Your task to perform on an android device: allow notifications from all sites in the chrome app Image 0: 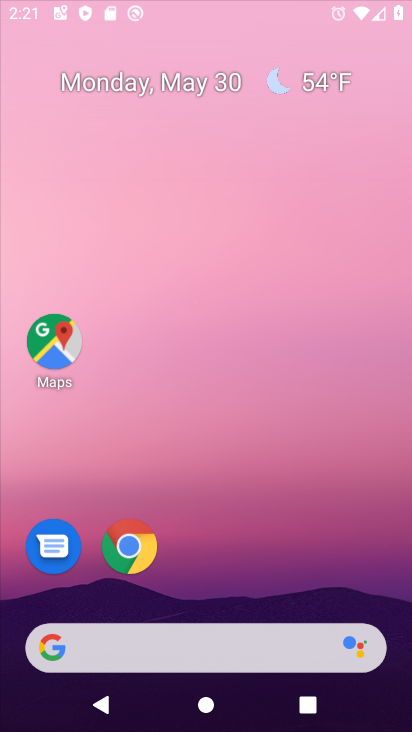
Step 0: press home button
Your task to perform on an android device: allow notifications from all sites in the chrome app Image 1: 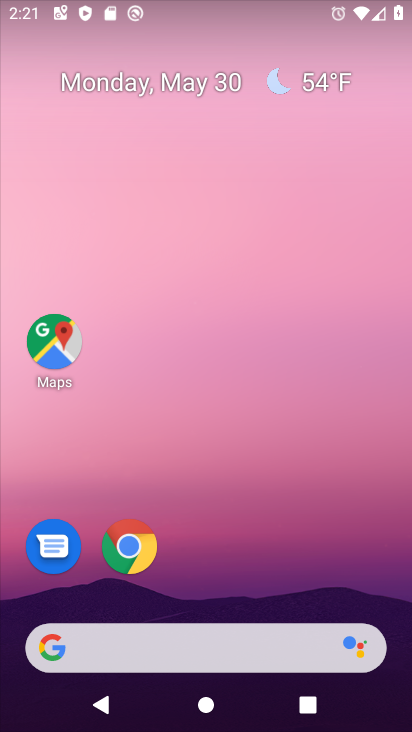
Step 1: click (131, 542)
Your task to perform on an android device: allow notifications from all sites in the chrome app Image 2: 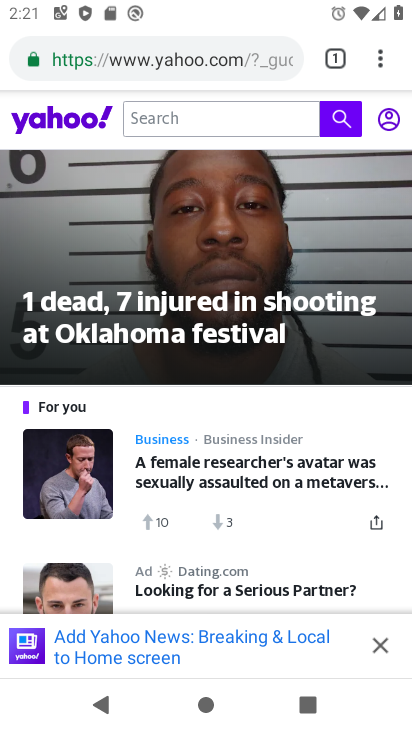
Step 2: click (377, 57)
Your task to perform on an android device: allow notifications from all sites in the chrome app Image 3: 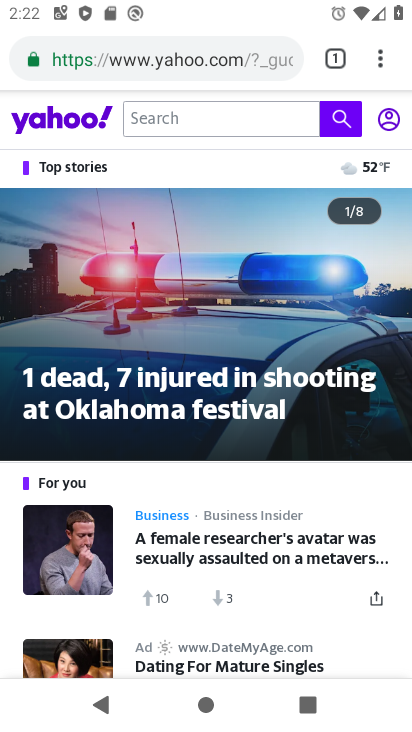
Step 3: click (383, 53)
Your task to perform on an android device: allow notifications from all sites in the chrome app Image 4: 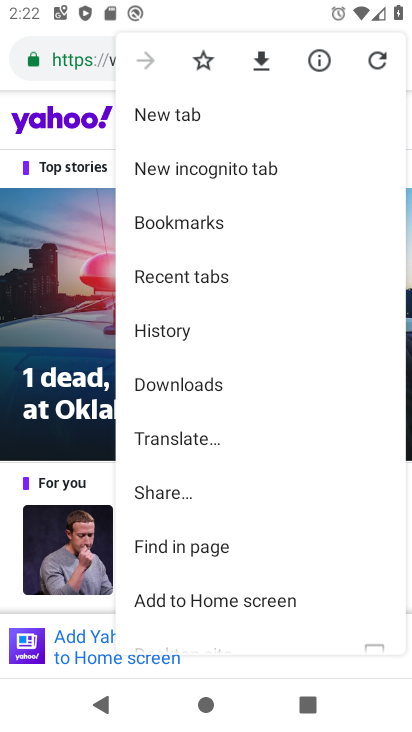
Step 4: drag from (259, 566) to (302, 116)
Your task to perform on an android device: allow notifications from all sites in the chrome app Image 5: 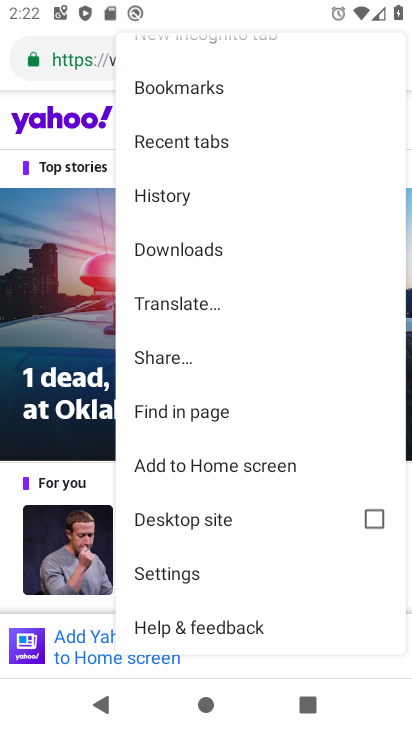
Step 5: click (206, 570)
Your task to perform on an android device: allow notifications from all sites in the chrome app Image 6: 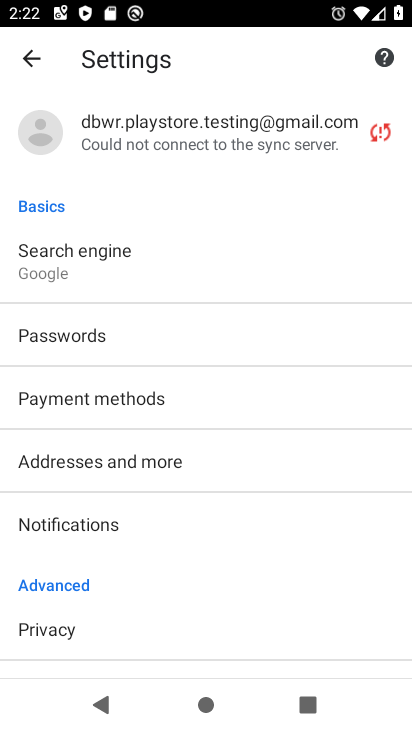
Step 6: drag from (193, 587) to (256, 175)
Your task to perform on an android device: allow notifications from all sites in the chrome app Image 7: 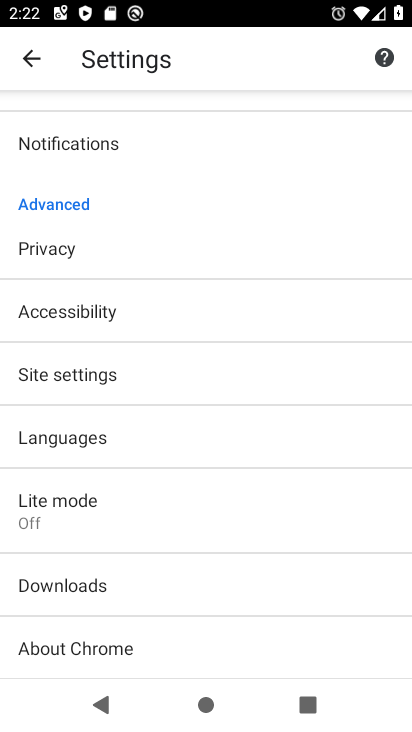
Step 7: click (154, 372)
Your task to perform on an android device: allow notifications from all sites in the chrome app Image 8: 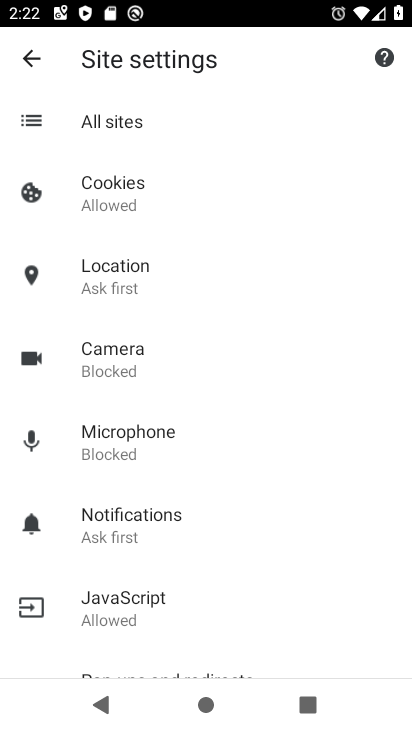
Step 8: click (155, 117)
Your task to perform on an android device: allow notifications from all sites in the chrome app Image 9: 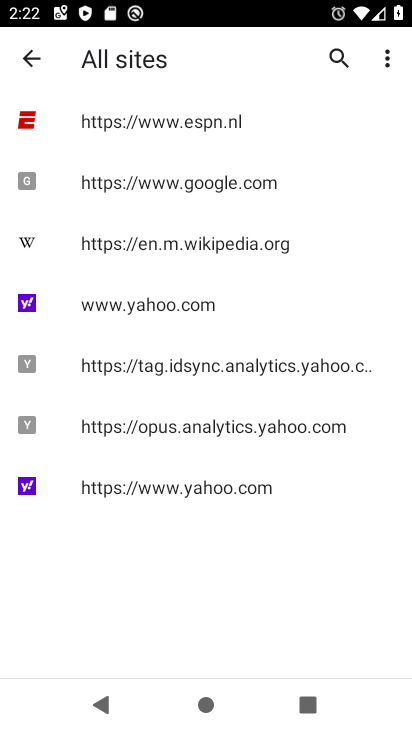
Step 9: click (72, 116)
Your task to perform on an android device: allow notifications from all sites in the chrome app Image 10: 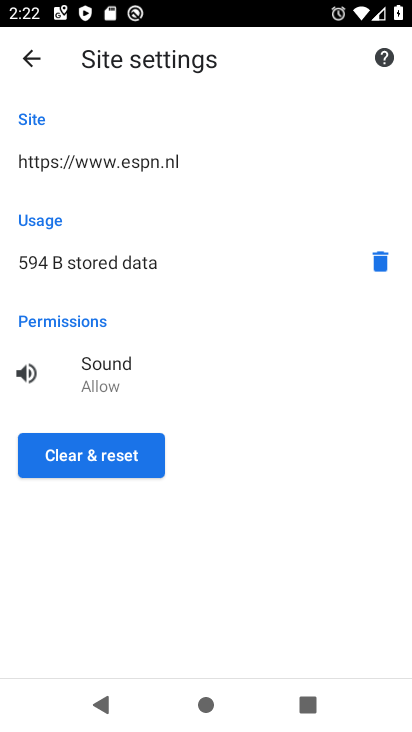
Step 10: click (22, 53)
Your task to perform on an android device: allow notifications from all sites in the chrome app Image 11: 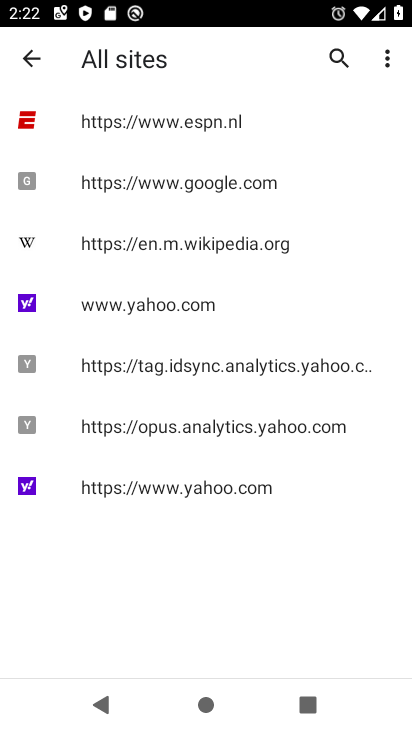
Step 11: click (90, 172)
Your task to perform on an android device: allow notifications from all sites in the chrome app Image 12: 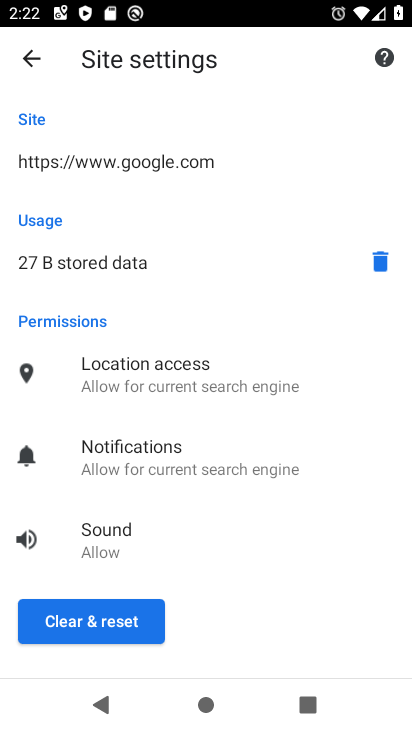
Step 12: click (35, 57)
Your task to perform on an android device: allow notifications from all sites in the chrome app Image 13: 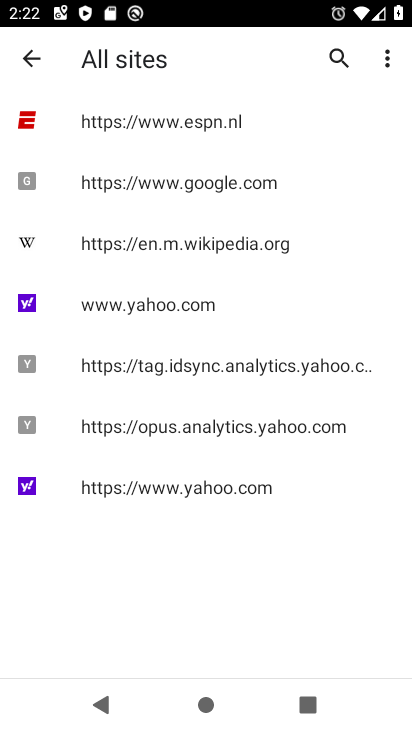
Step 13: click (66, 295)
Your task to perform on an android device: allow notifications from all sites in the chrome app Image 14: 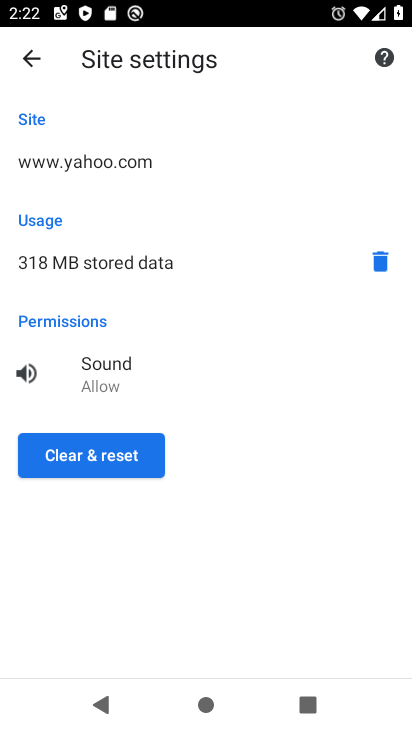
Step 14: click (36, 60)
Your task to perform on an android device: allow notifications from all sites in the chrome app Image 15: 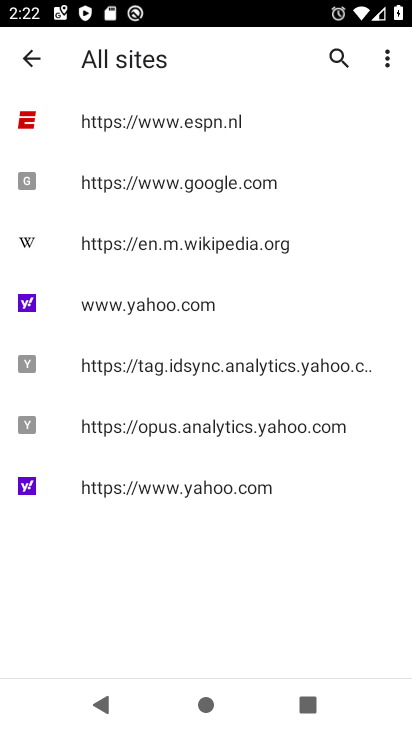
Step 15: click (66, 364)
Your task to perform on an android device: allow notifications from all sites in the chrome app Image 16: 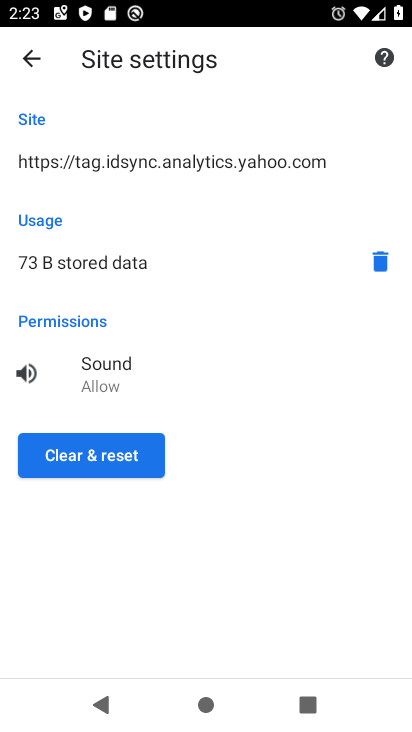
Step 16: task complete